Your task to perform on an android device: When is my next meeting? Image 0: 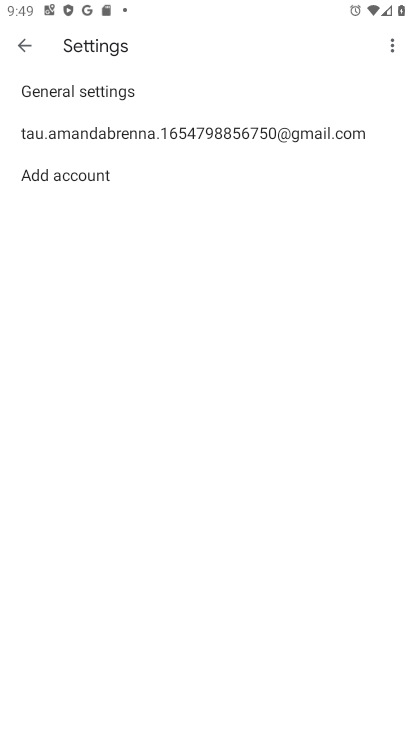
Step 0: press home button
Your task to perform on an android device: When is my next meeting? Image 1: 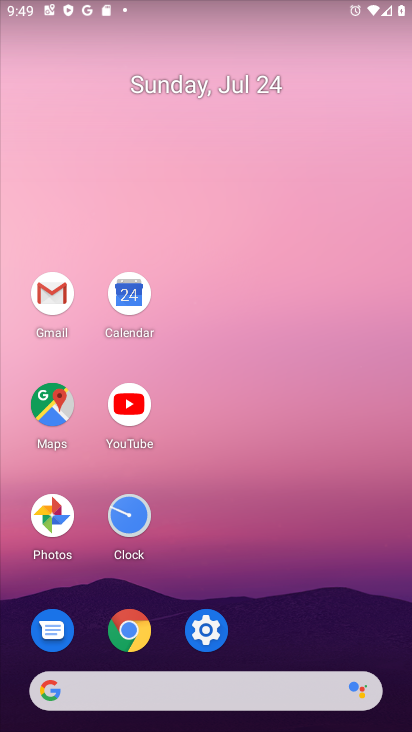
Step 1: click (124, 297)
Your task to perform on an android device: When is my next meeting? Image 2: 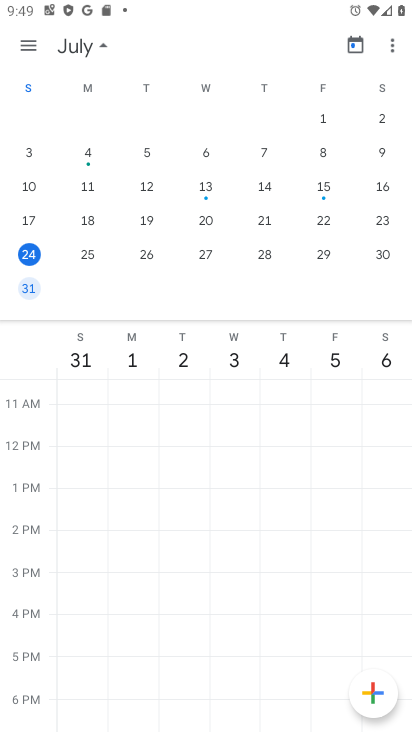
Step 2: click (90, 255)
Your task to perform on an android device: When is my next meeting? Image 3: 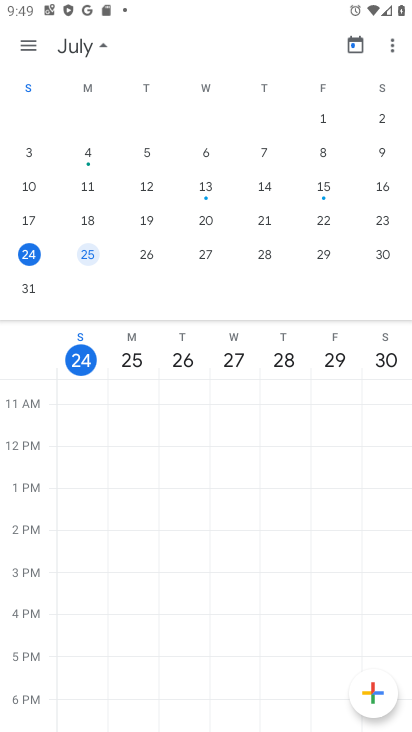
Step 3: task complete